Your task to perform on an android device: Do I have any events this weekend? Image 0: 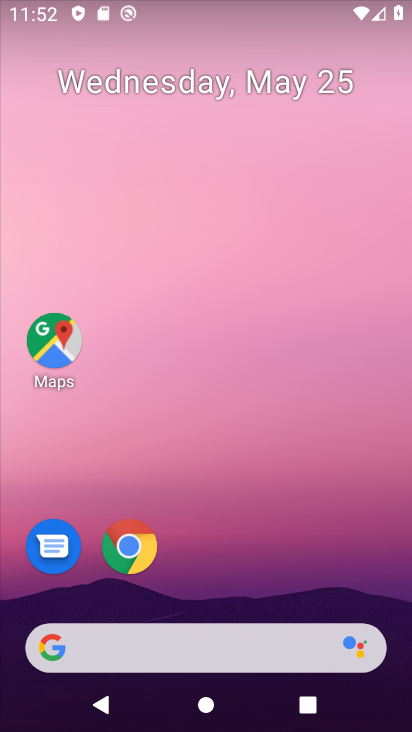
Step 0: drag from (326, 595) to (278, 45)
Your task to perform on an android device: Do I have any events this weekend? Image 1: 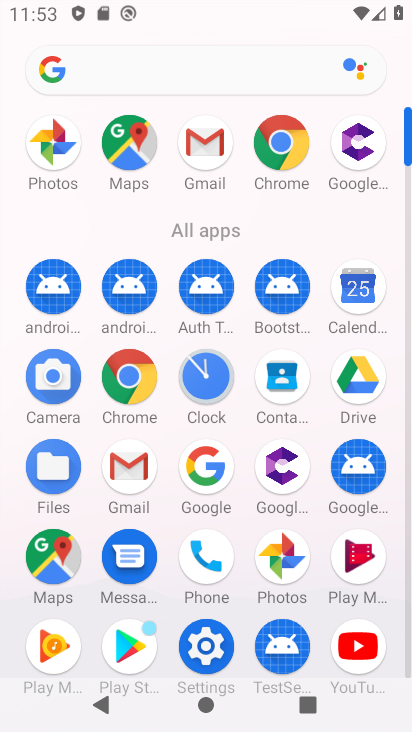
Step 1: click (387, 294)
Your task to perform on an android device: Do I have any events this weekend? Image 2: 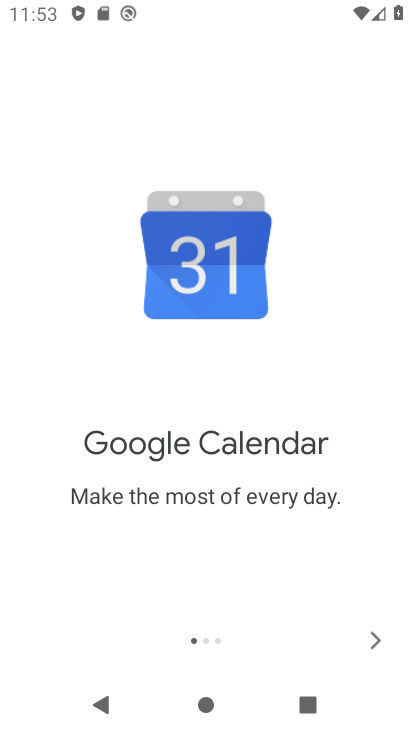
Step 2: click (386, 638)
Your task to perform on an android device: Do I have any events this weekend? Image 3: 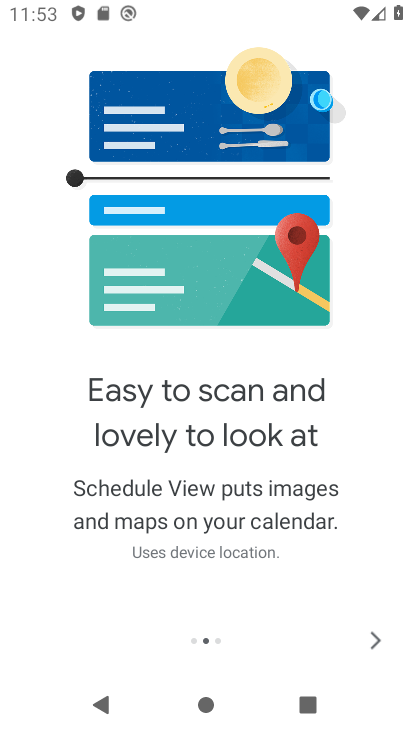
Step 3: click (380, 632)
Your task to perform on an android device: Do I have any events this weekend? Image 4: 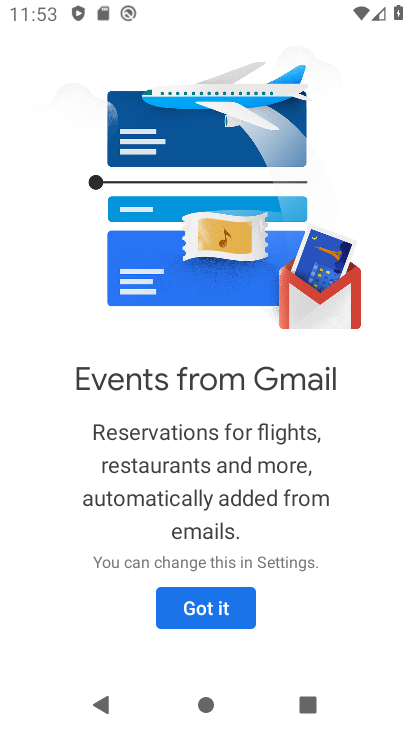
Step 4: click (215, 598)
Your task to perform on an android device: Do I have any events this weekend? Image 5: 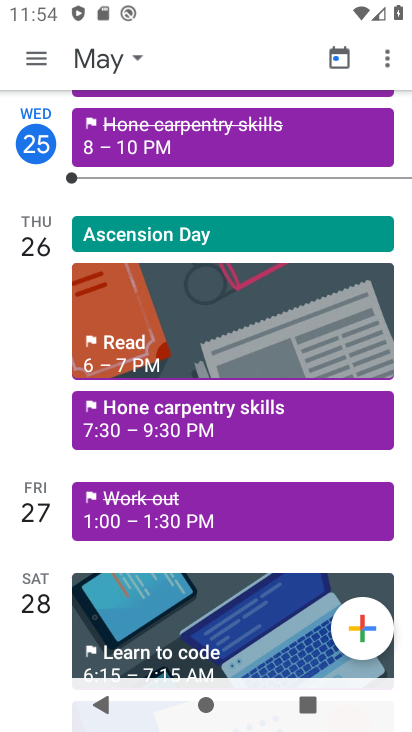
Step 5: task complete